Your task to perform on an android device: toggle data saver in the chrome app Image 0: 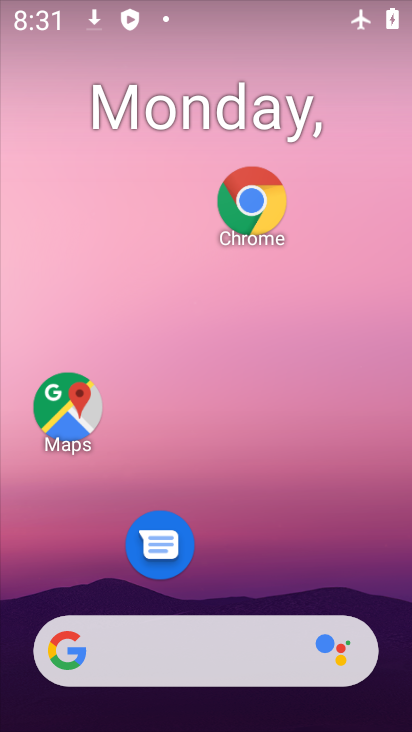
Step 0: click (249, 207)
Your task to perform on an android device: toggle data saver in the chrome app Image 1: 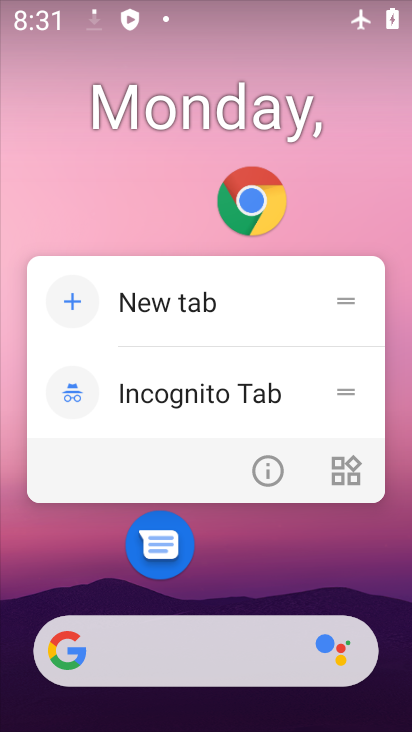
Step 1: click (249, 206)
Your task to perform on an android device: toggle data saver in the chrome app Image 2: 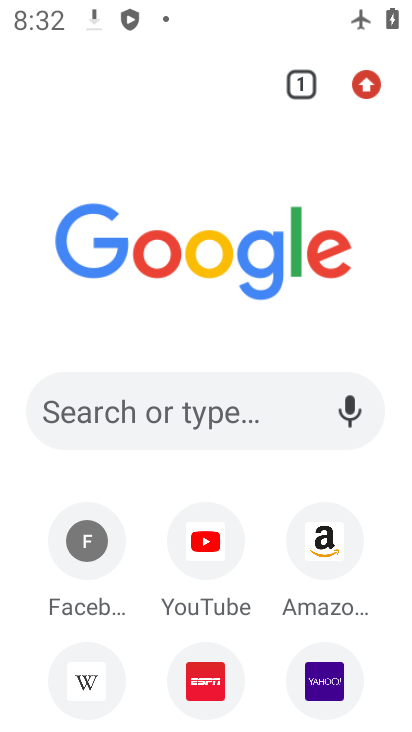
Step 2: click (364, 90)
Your task to perform on an android device: toggle data saver in the chrome app Image 3: 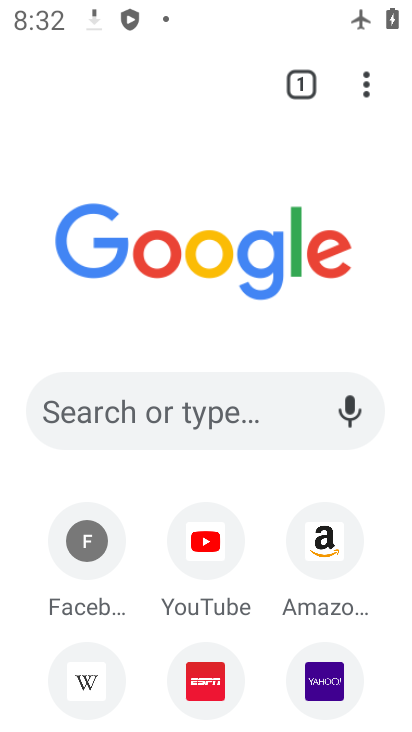
Step 3: click (364, 90)
Your task to perform on an android device: toggle data saver in the chrome app Image 4: 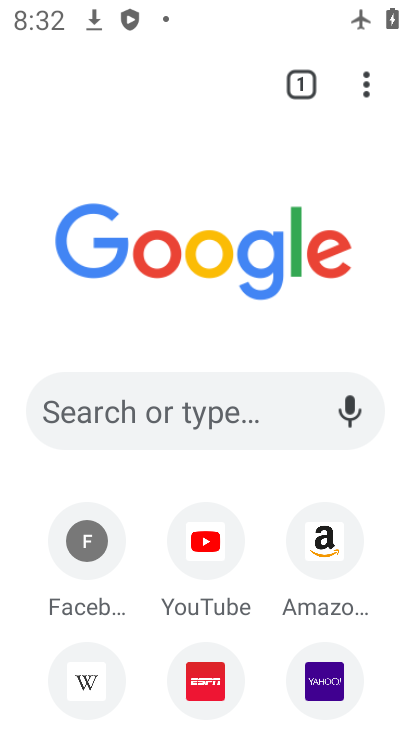
Step 4: click (364, 90)
Your task to perform on an android device: toggle data saver in the chrome app Image 5: 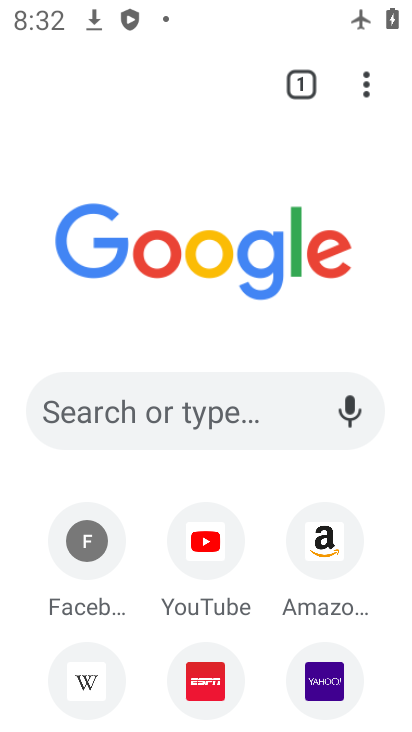
Step 5: drag from (364, 90) to (136, 586)
Your task to perform on an android device: toggle data saver in the chrome app Image 6: 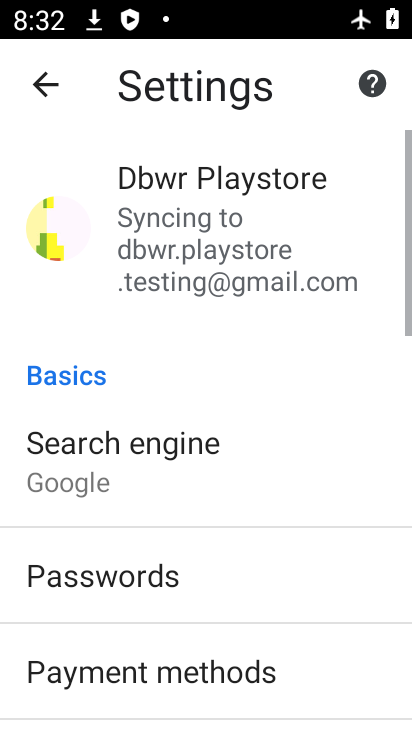
Step 6: drag from (241, 631) to (228, 266)
Your task to perform on an android device: toggle data saver in the chrome app Image 7: 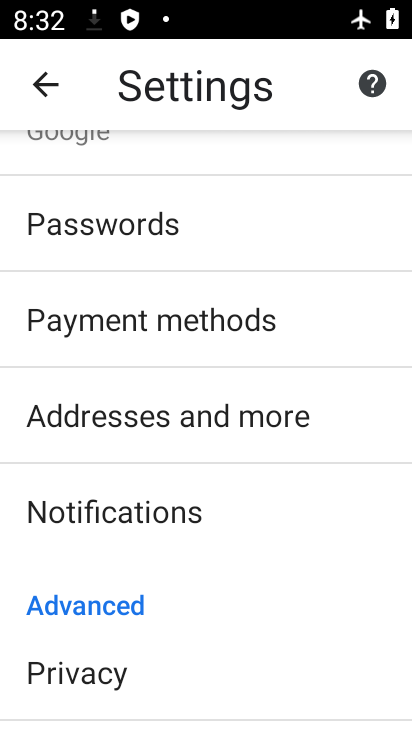
Step 7: drag from (216, 617) to (239, 266)
Your task to perform on an android device: toggle data saver in the chrome app Image 8: 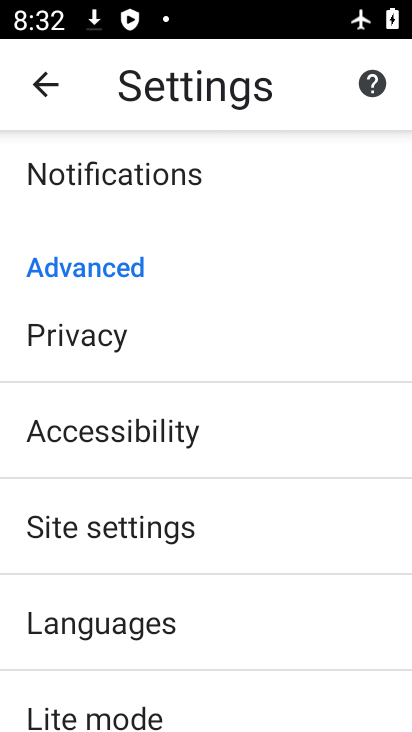
Step 8: drag from (225, 633) to (222, 349)
Your task to perform on an android device: toggle data saver in the chrome app Image 9: 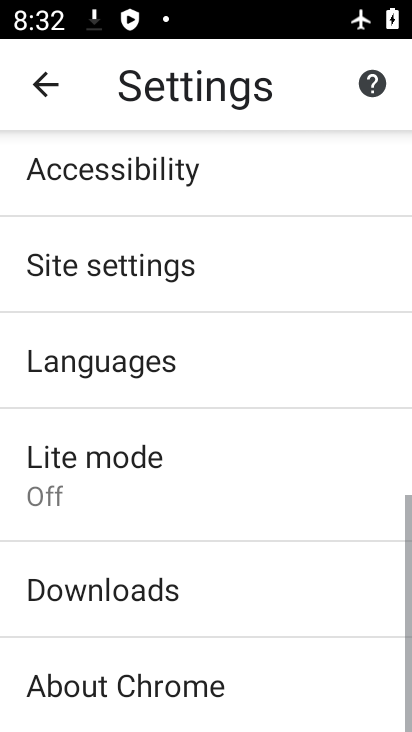
Step 9: click (101, 471)
Your task to perform on an android device: toggle data saver in the chrome app Image 10: 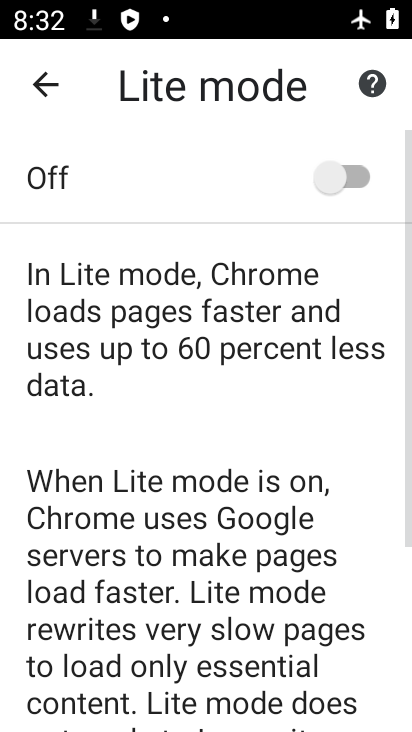
Step 10: click (357, 163)
Your task to perform on an android device: toggle data saver in the chrome app Image 11: 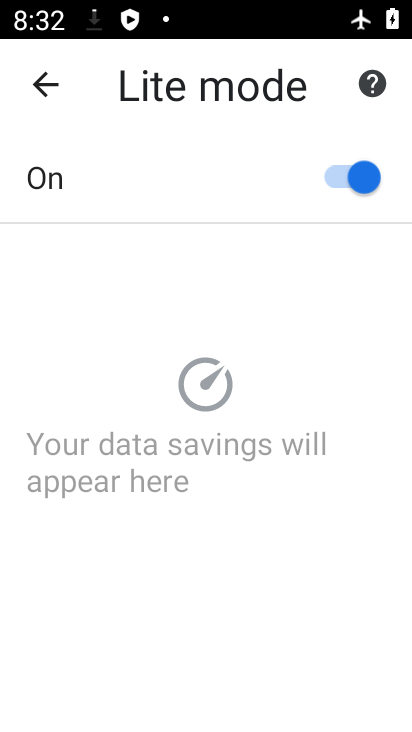
Step 11: task complete